Your task to perform on an android device: open a bookmark in the chrome app Image 0: 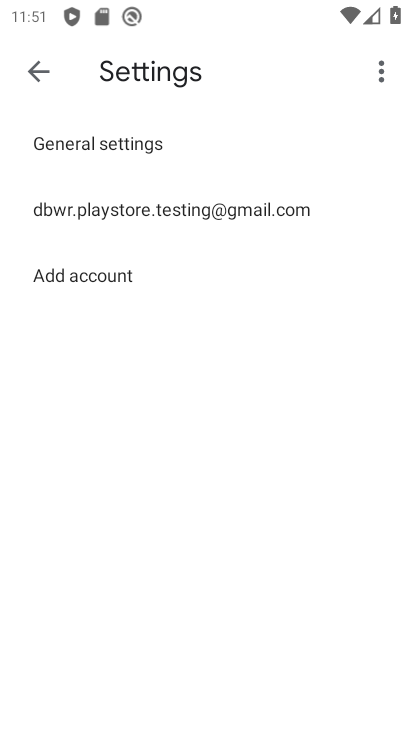
Step 0: press home button
Your task to perform on an android device: open a bookmark in the chrome app Image 1: 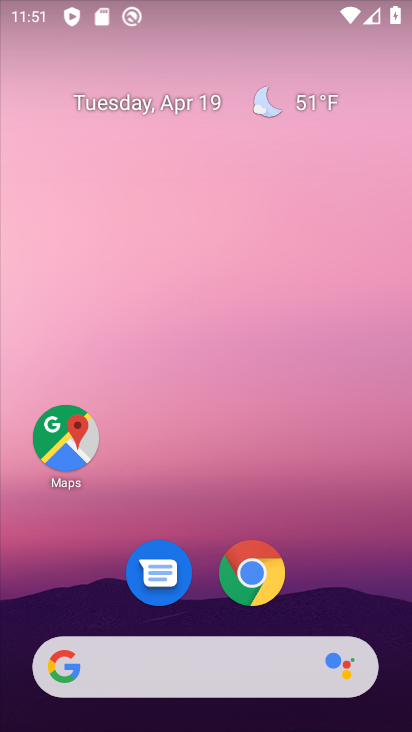
Step 1: drag from (309, 596) to (311, 210)
Your task to perform on an android device: open a bookmark in the chrome app Image 2: 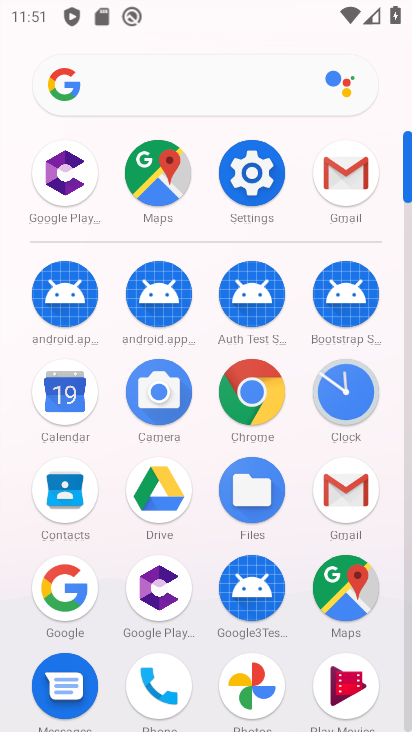
Step 2: click (251, 416)
Your task to perform on an android device: open a bookmark in the chrome app Image 3: 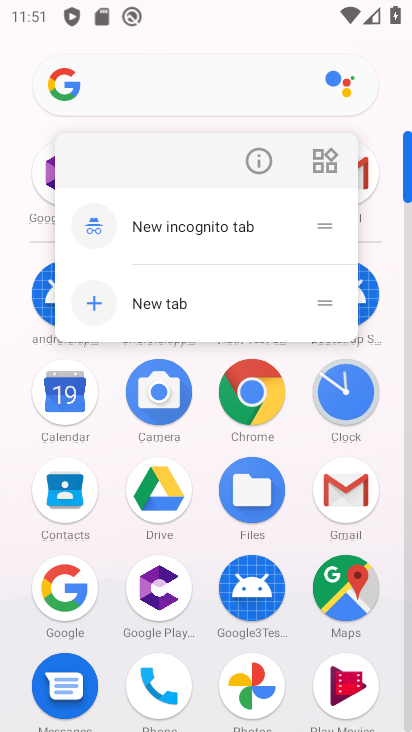
Step 3: click (264, 399)
Your task to perform on an android device: open a bookmark in the chrome app Image 4: 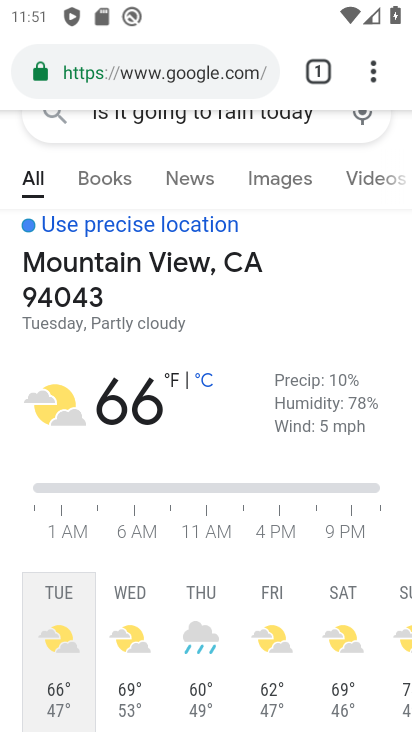
Step 4: task complete